Your task to perform on an android device: toggle notification dots Image 0: 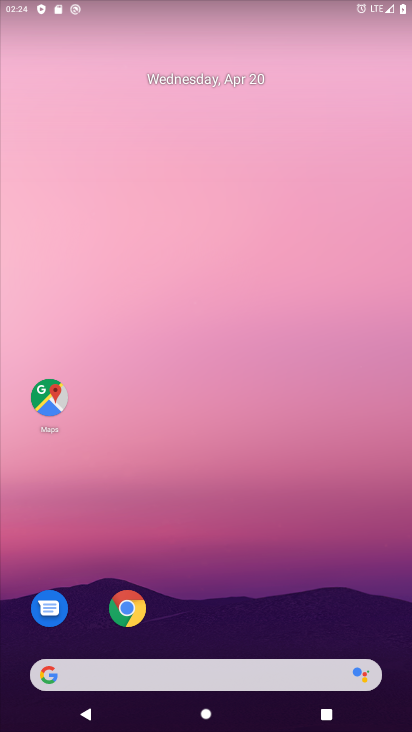
Step 0: drag from (357, 589) to (350, 110)
Your task to perform on an android device: toggle notification dots Image 1: 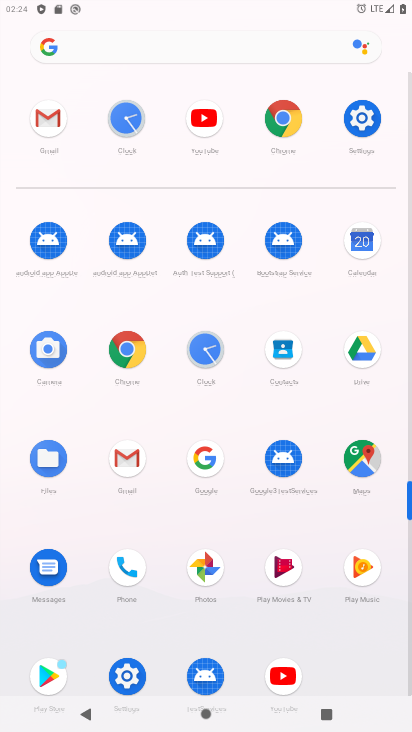
Step 1: click (370, 129)
Your task to perform on an android device: toggle notification dots Image 2: 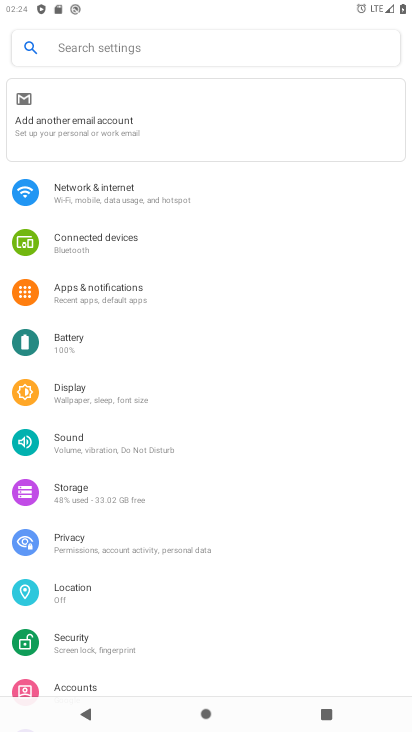
Step 2: click (98, 285)
Your task to perform on an android device: toggle notification dots Image 3: 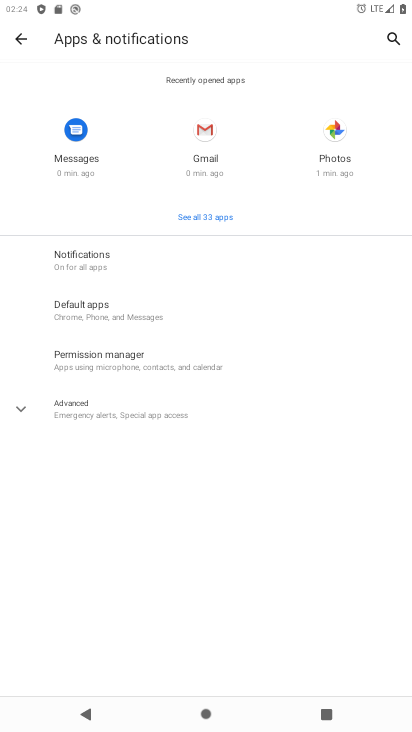
Step 3: click (115, 268)
Your task to perform on an android device: toggle notification dots Image 4: 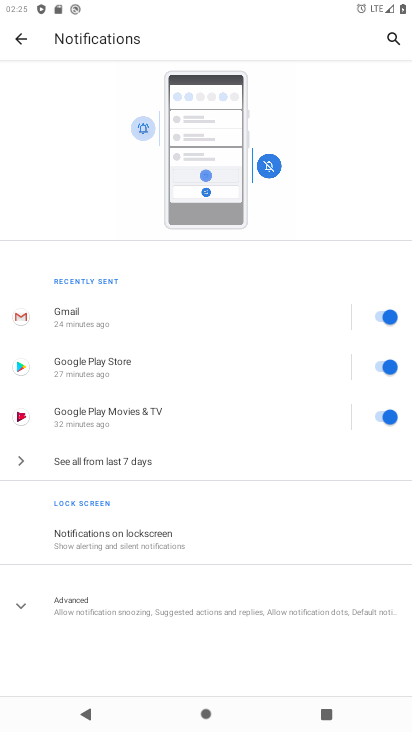
Step 4: click (147, 603)
Your task to perform on an android device: toggle notification dots Image 5: 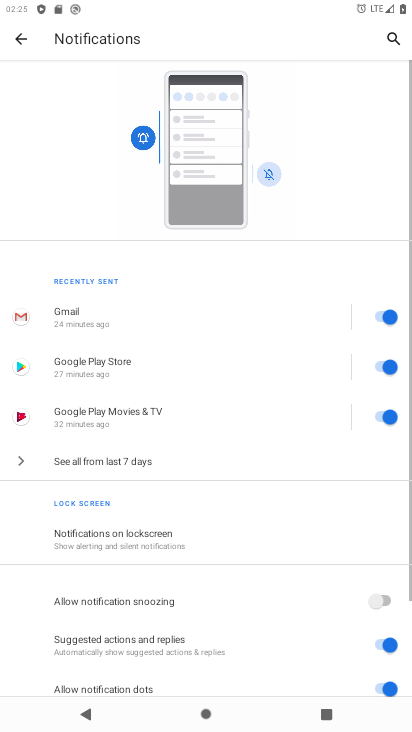
Step 5: drag from (211, 637) to (213, 416)
Your task to perform on an android device: toggle notification dots Image 6: 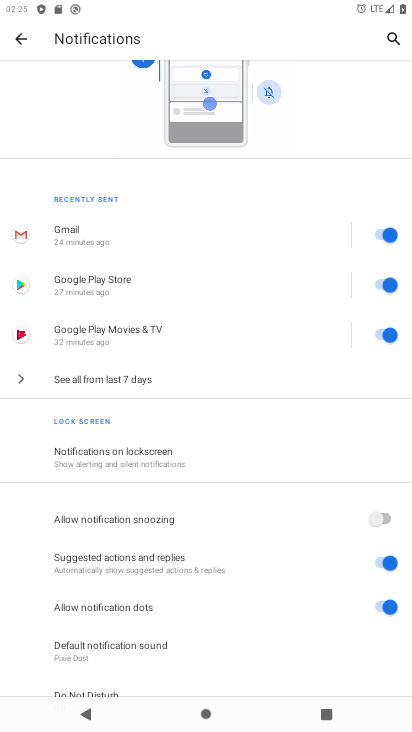
Step 6: click (379, 610)
Your task to perform on an android device: toggle notification dots Image 7: 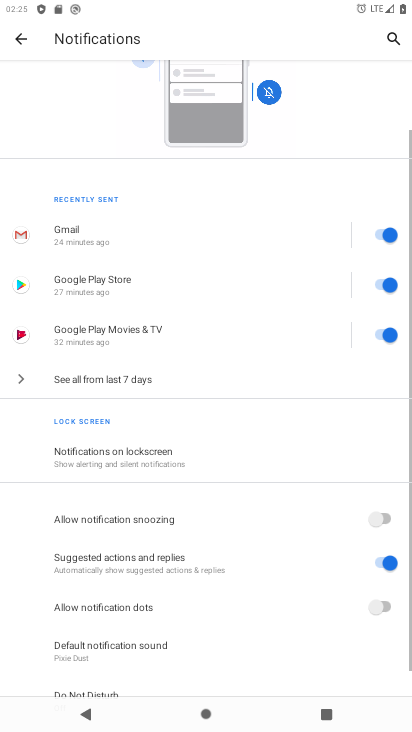
Step 7: task complete